Your task to perform on an android device: open app "Nova Launcher" Image 0: 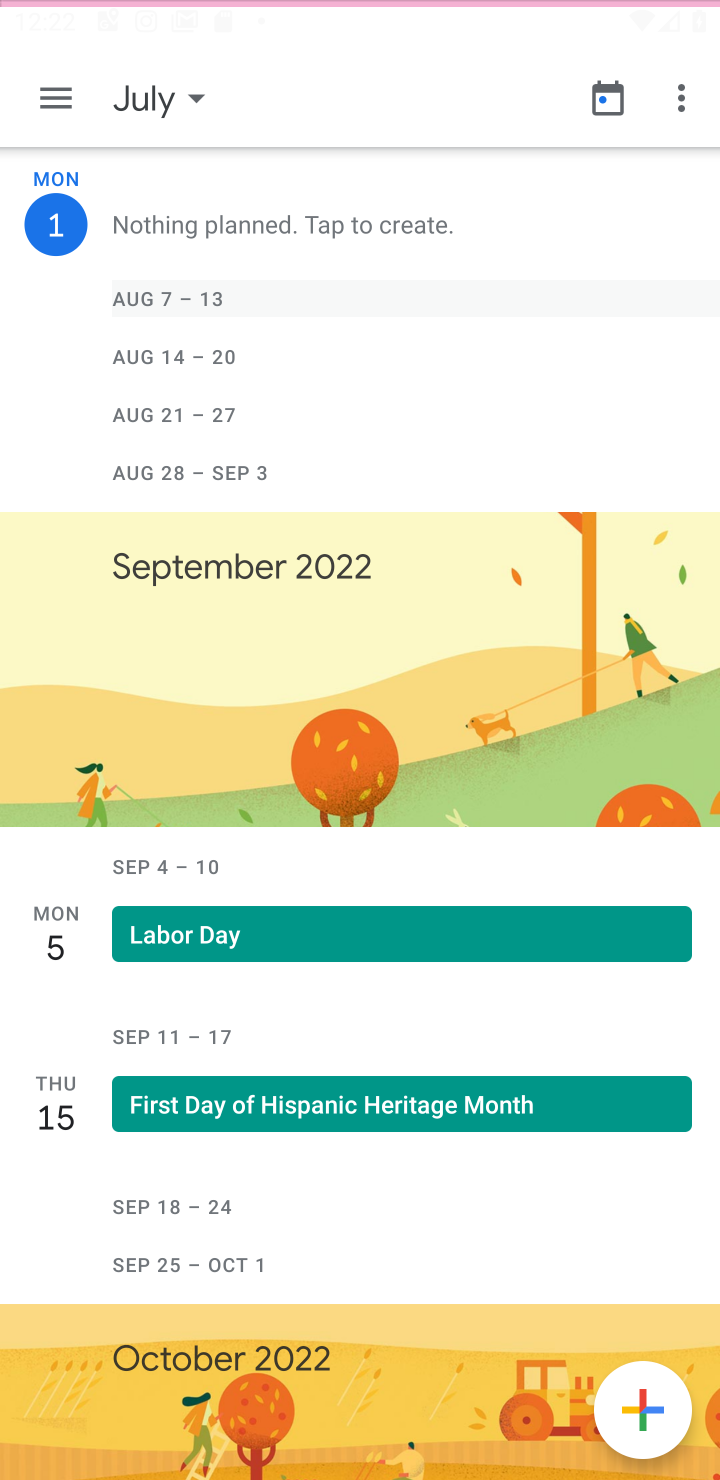
Step 0: press home button
Your task to perform on an android device: open app "Nova Launcher" Image 1: 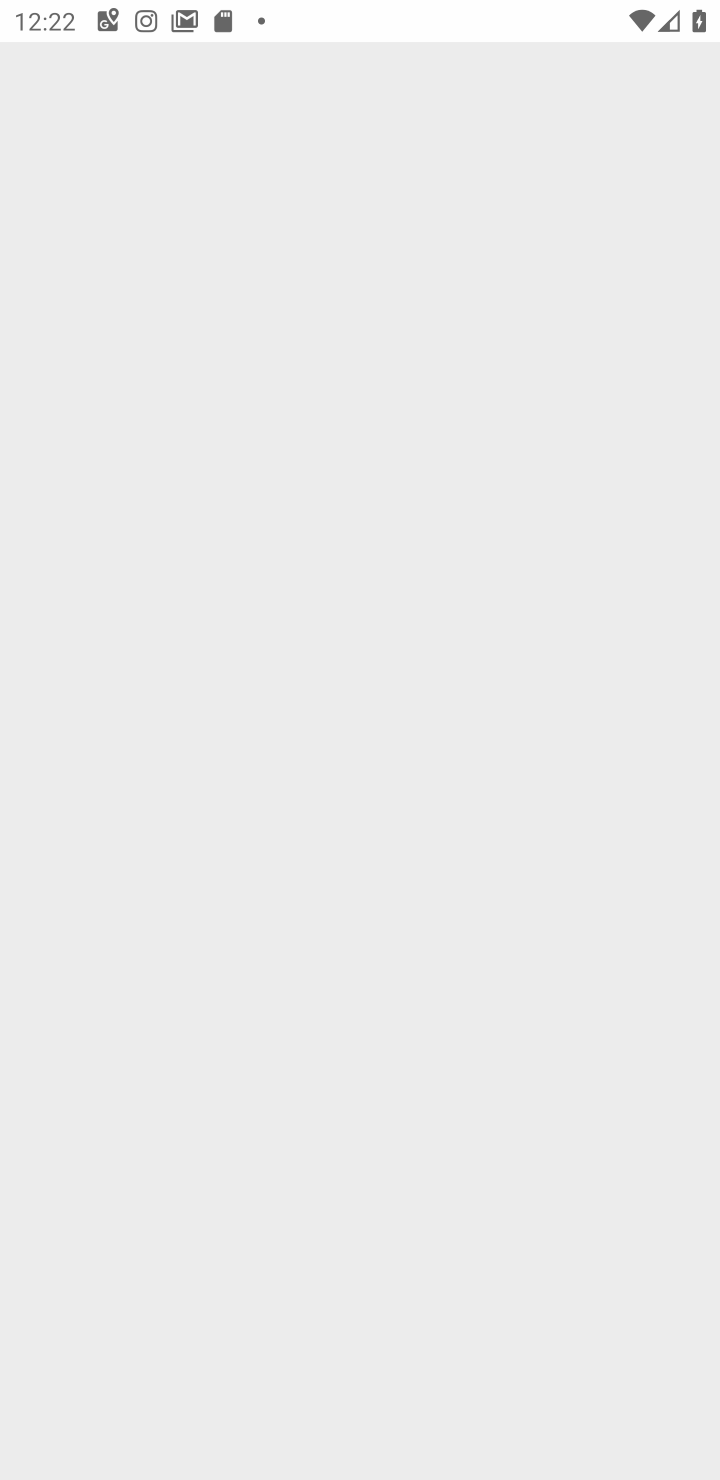
Step 1: press home button
Your task to perform on an android device: open app "Nova Launcher" Image 2: 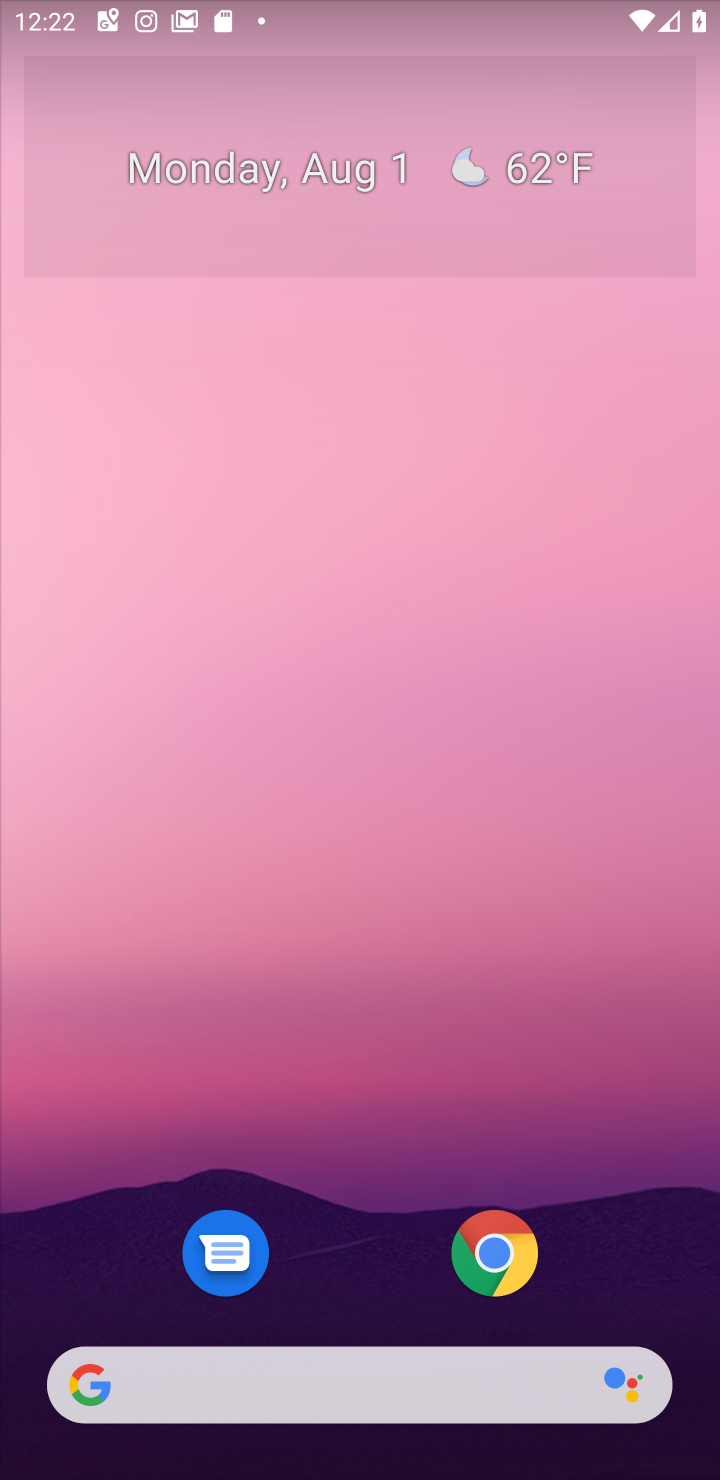
Step 2: press home button
Your task to perform on an android device: open app "Nova Launcher" Image 3: 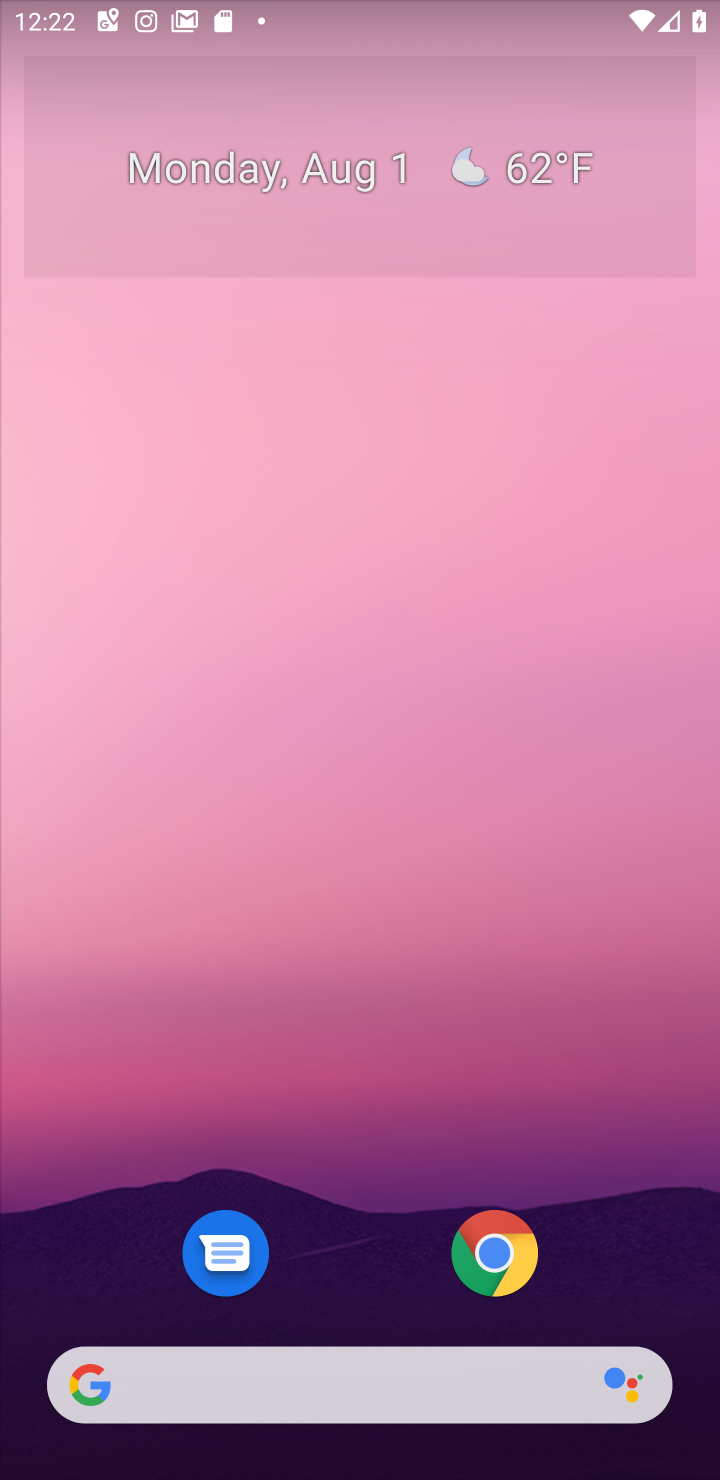
Step 3: press home button
Your task to perform on an android device: open app "Nova Launcher" Image 4: 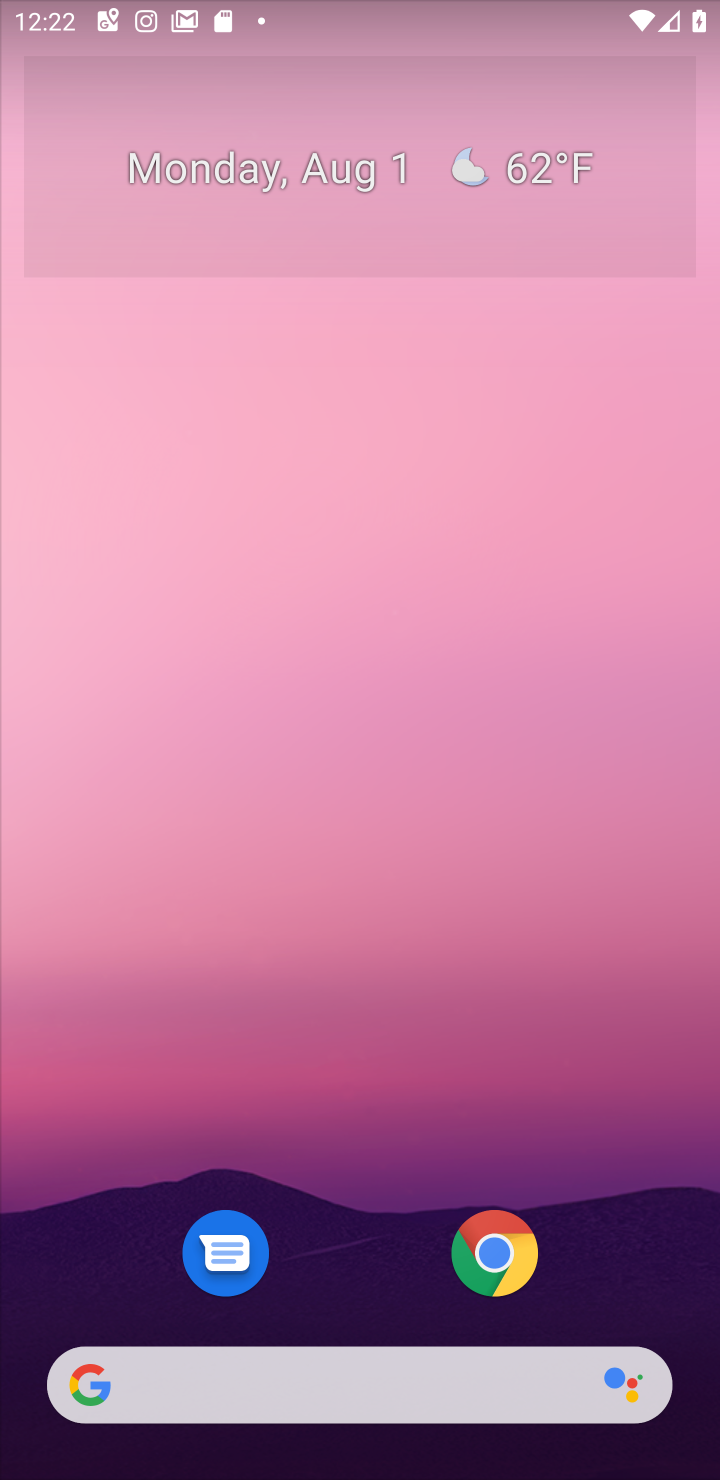
Step 4: drag from (384, 1033) to (505, 28)
Your task to perform on an android device: open app "Nova Launcher" Image 5: 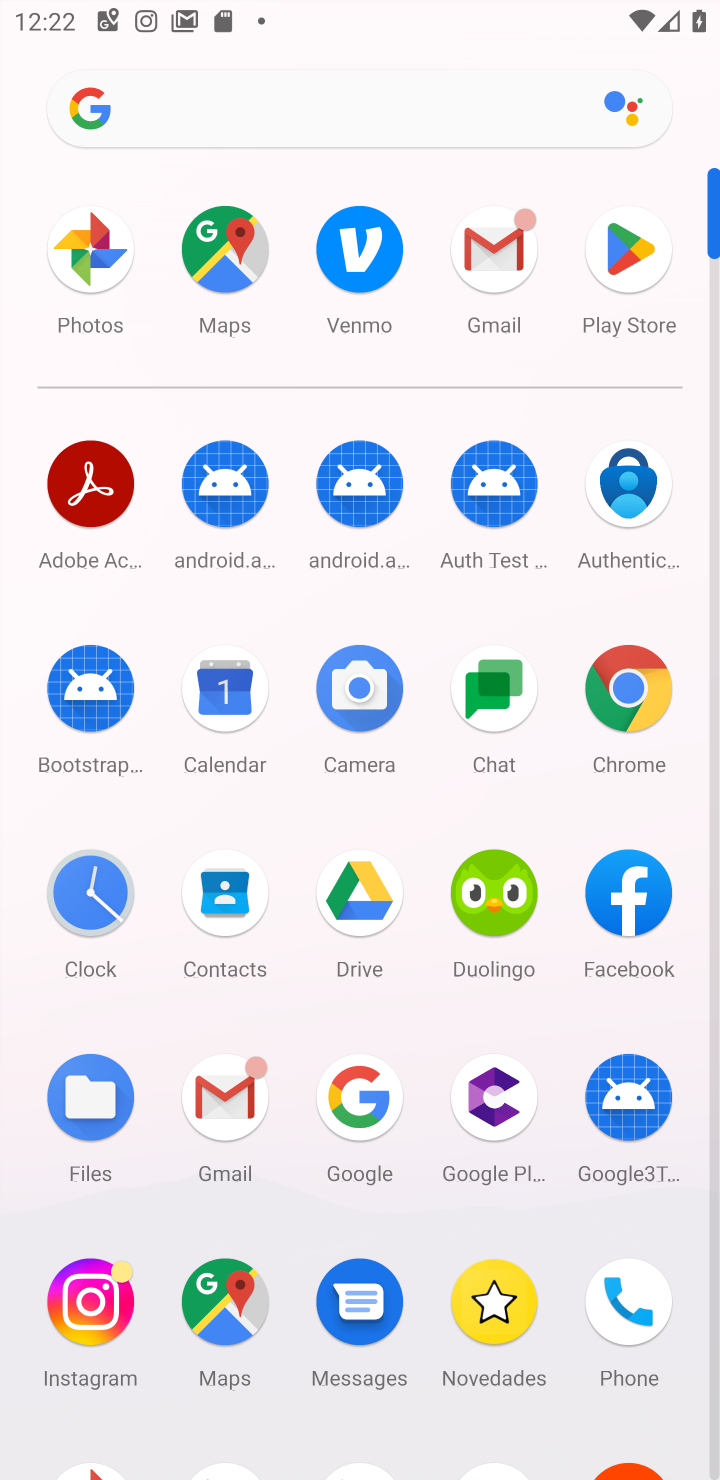
Step 5: click (633, 243)
Your task to perform on an android device: open app "Nova Launcher" Image 6: 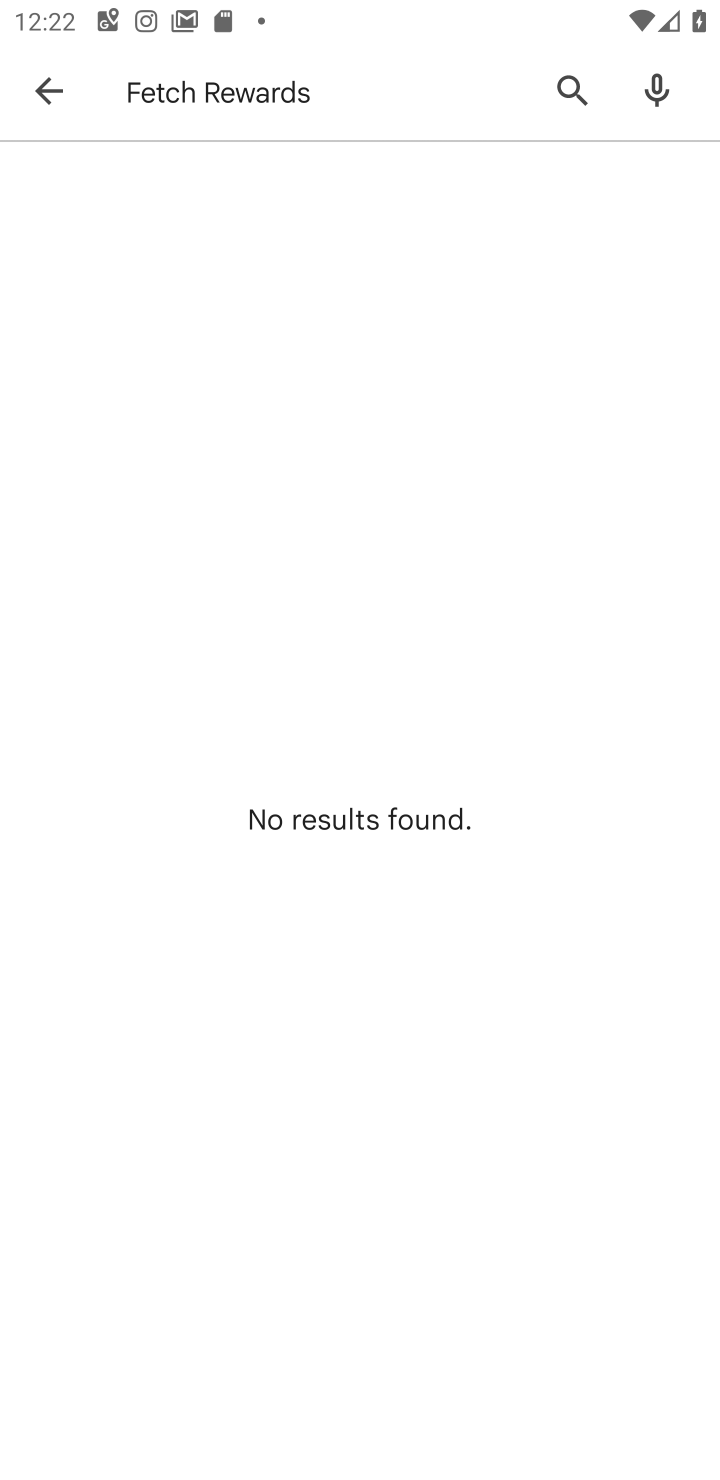
Step 6: click (362, 110)
Your task to perform on an android device: open app "Nova Launcher" Image 7: 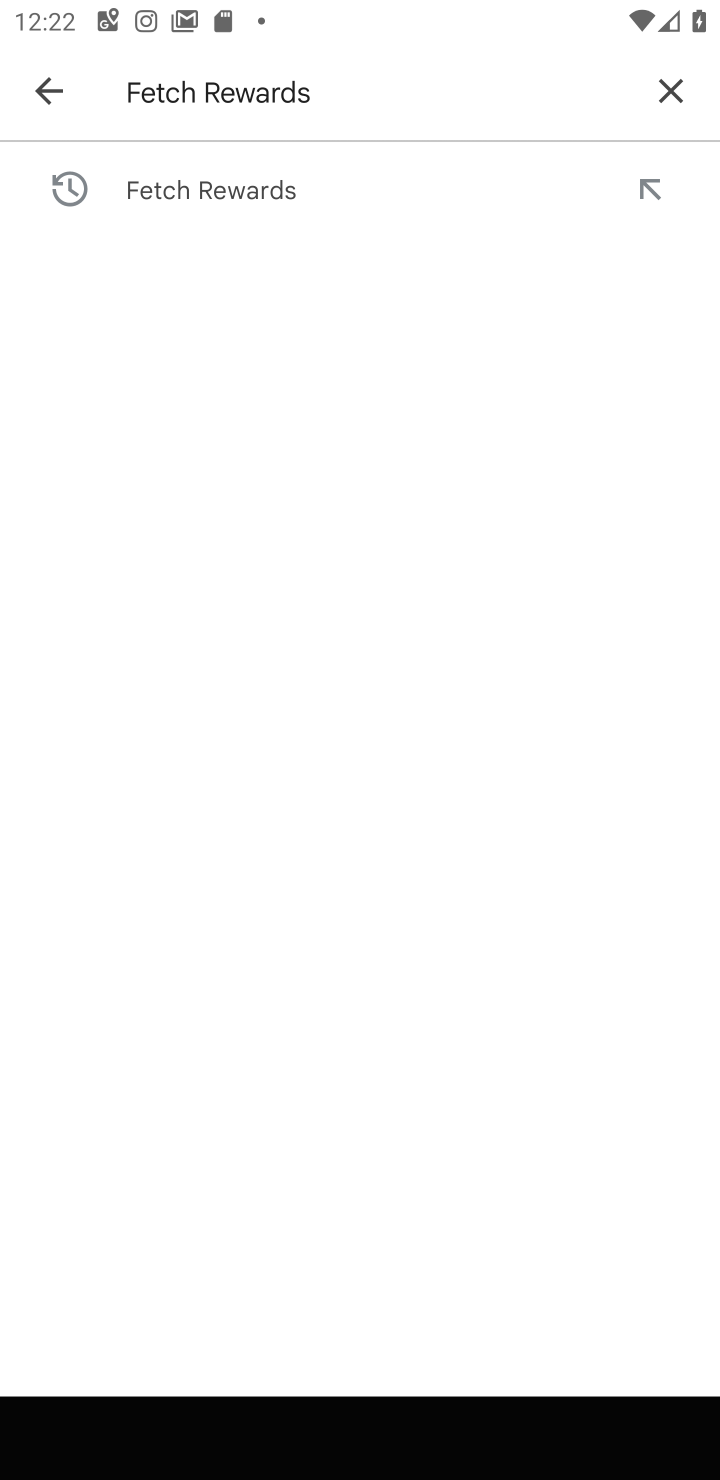
Step 7: click (670, 81)
Your task to perform on an android device: open app "Nova Launcher" Image 8: 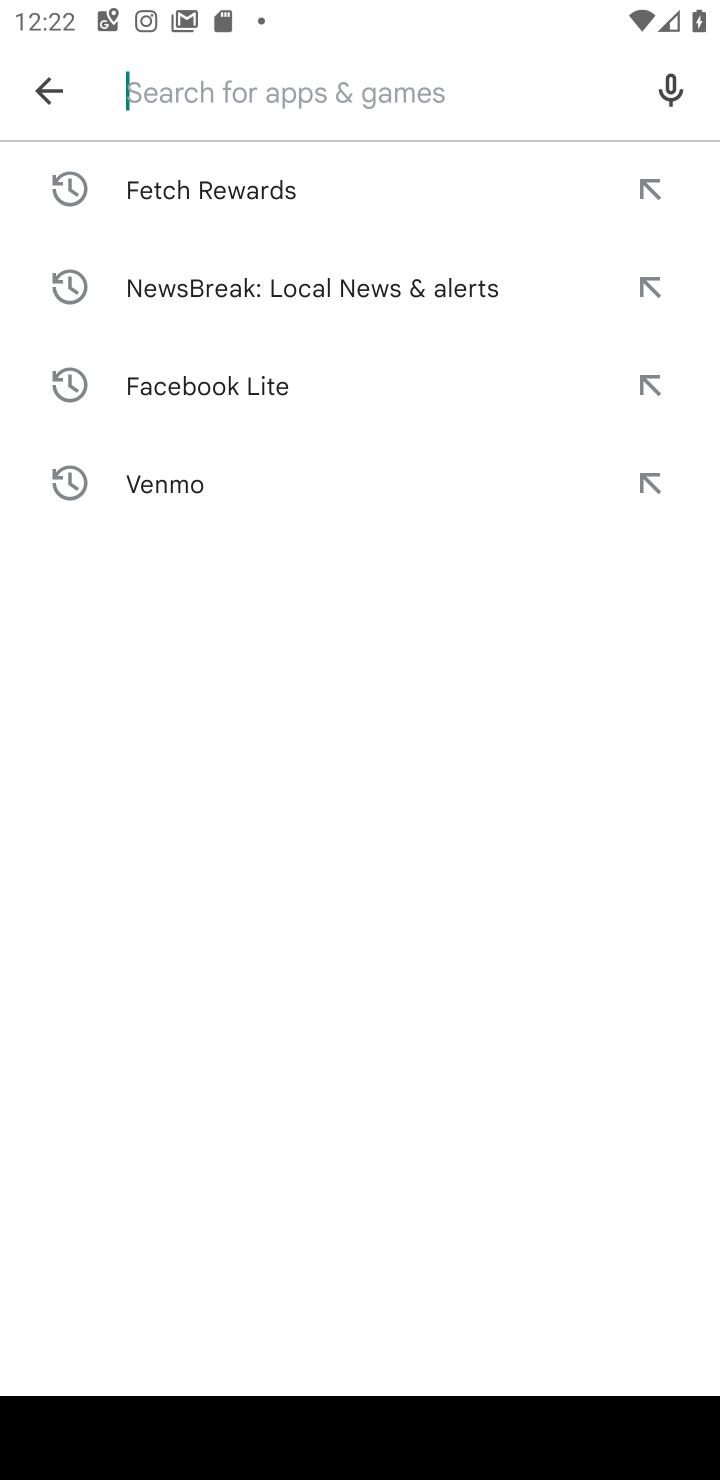
Step 8: type "Nova Launcher"
Your task to perform on an android device: open app "Nova Launcher" Image 9: 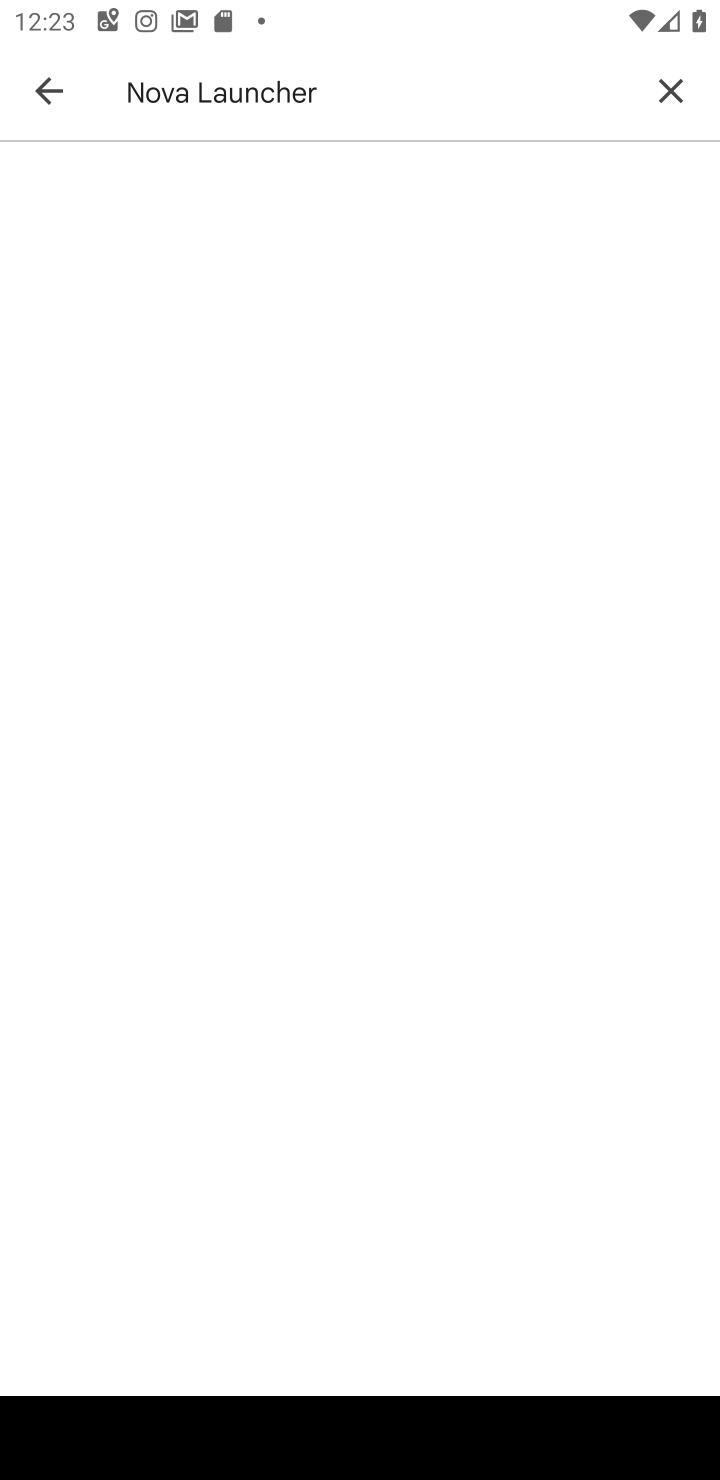
Step 9: press enter
Your task to perform on an android device: open app "Nova Launcher" Image 10: 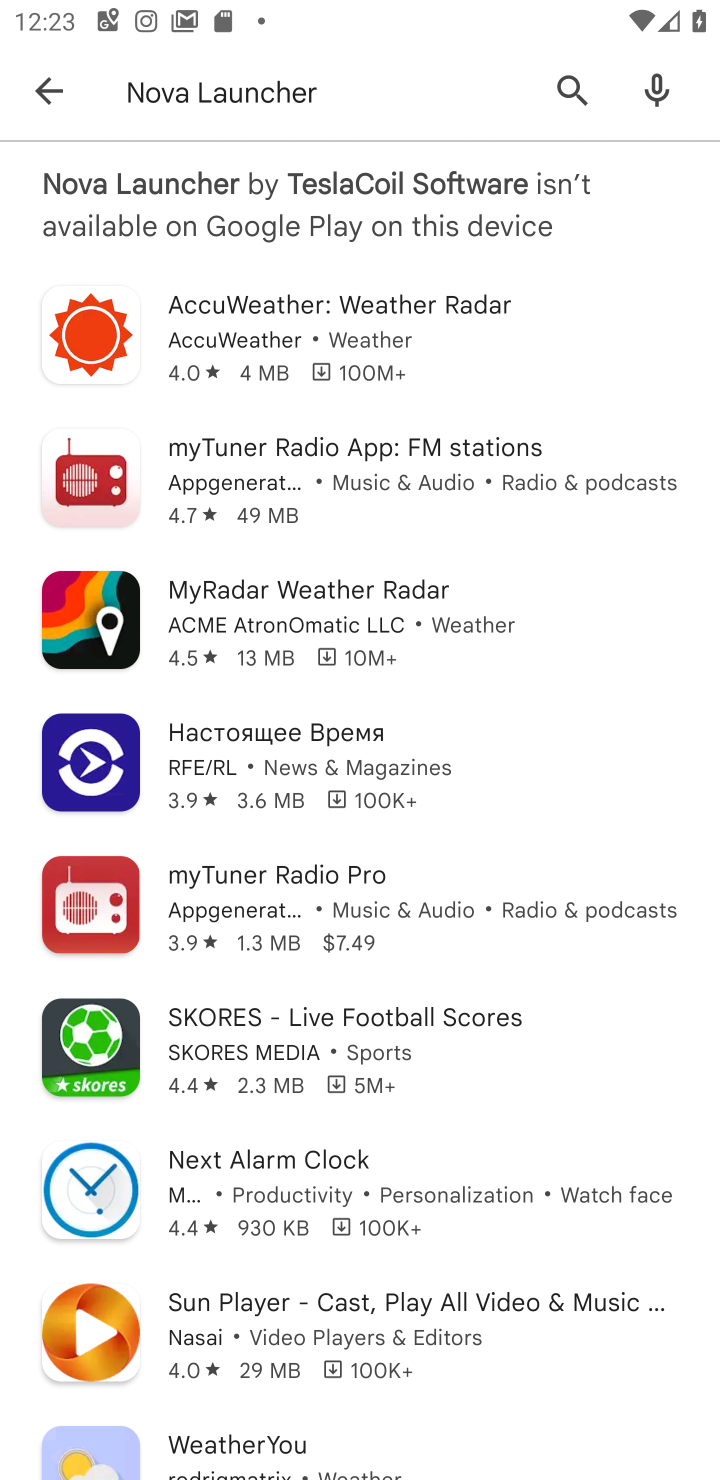
Step 10: task complete